Your task to perform on an android device: Search for pizza restaurants on Maps Image 0: 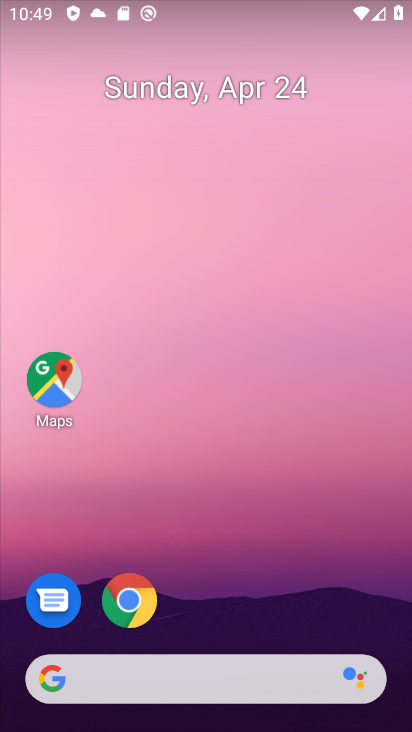
Step 0: click (43, 383)
Your task to perform on an android device: Search for pizza restaurants on Maps Image 1: 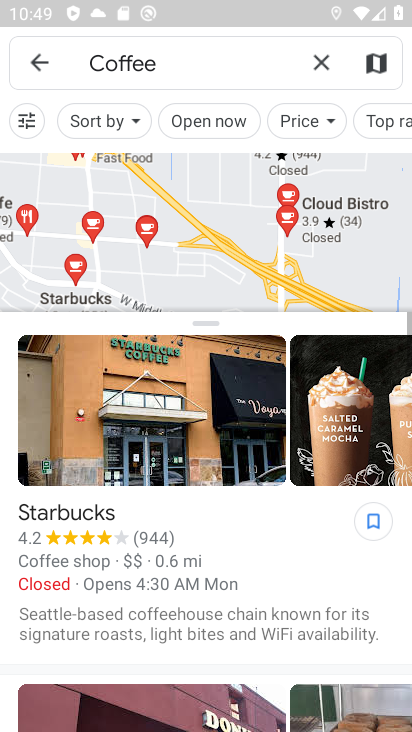
Step 1: click (315, 62)
Your task to perform on an android device: Search for pizza restaurants on Maps Image 2: 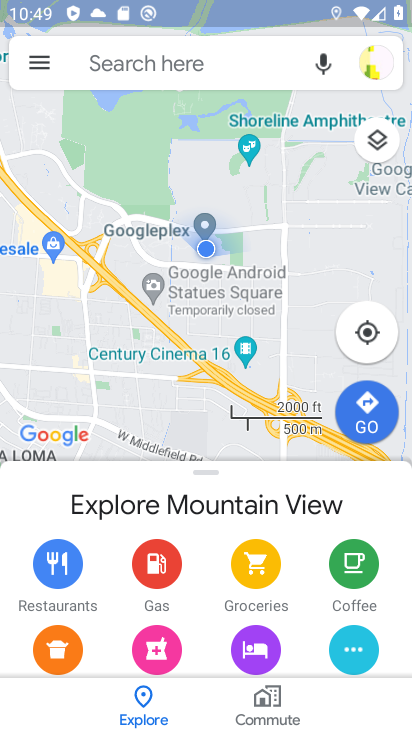
Step 2: click (191, 59)
Your task to perform on an android device: Search for pizza restaurants on Maps Image 3: 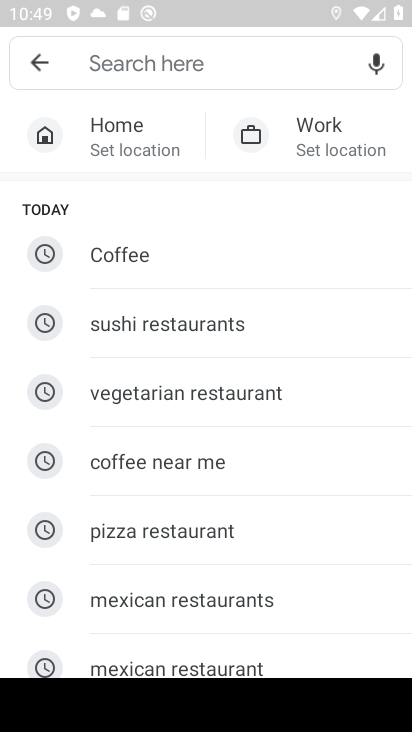
Step 3: click (171, 522)
Your task to perform on an android device: Search for pizza restaurants on Maps Image 4: 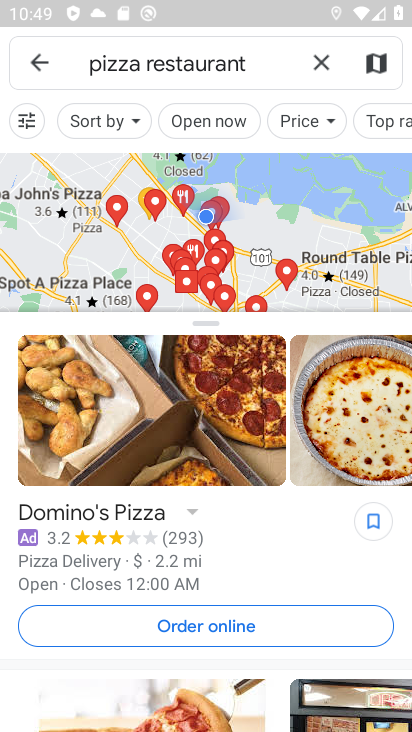
Step 4: task complete